Your task to perform on an android device: turn off location Image 0: 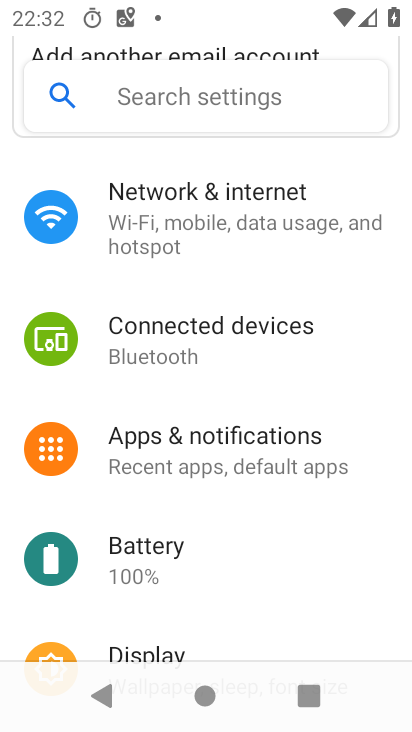
Step 0: drag from (302, 547) to (272, 293)
Your task to perform on an android device: turn off location Image 1: 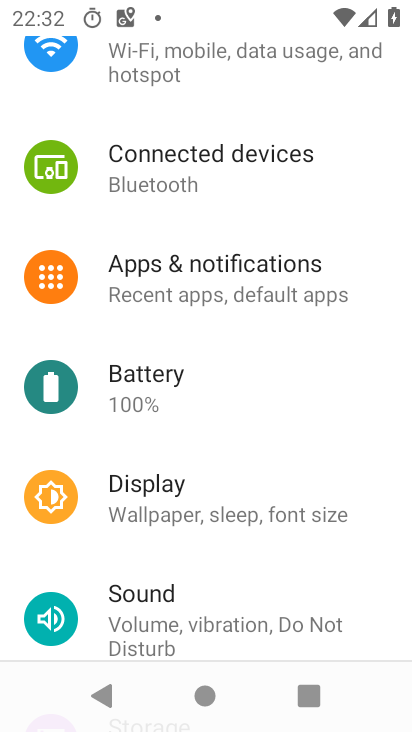
Step 1: drag from (242, 547) to (176, 212)
Your task to perform on an android device: turn off location Image 2: 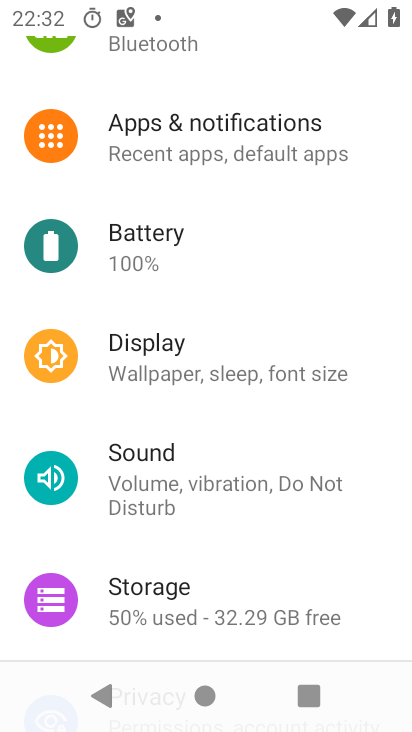
Step 2: drag from (261, 555) to (210, 312)
Your task to perform on an android device: turn off location Image 3: 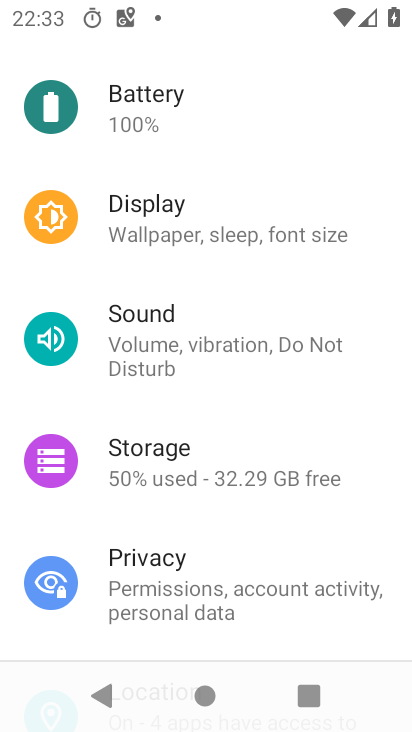
Step 3: drag from (240, 547) to (238, 295)
Your task to perform on an android device: turn off location Image 4: 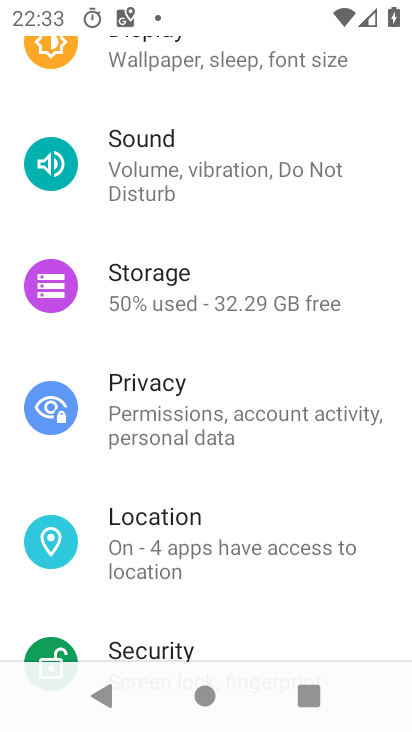
Step 4: click (212, 526)
Your task to perform on an android device: turn off location Image 5: 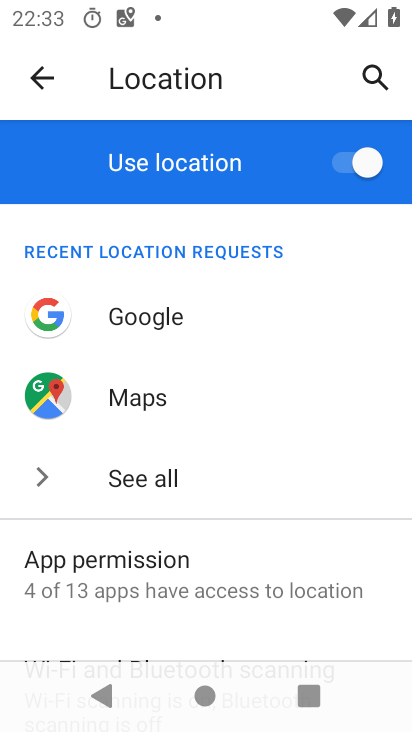
Step 5: click (344, 157)
Your task to perform on an android device: turn off location Image 6: 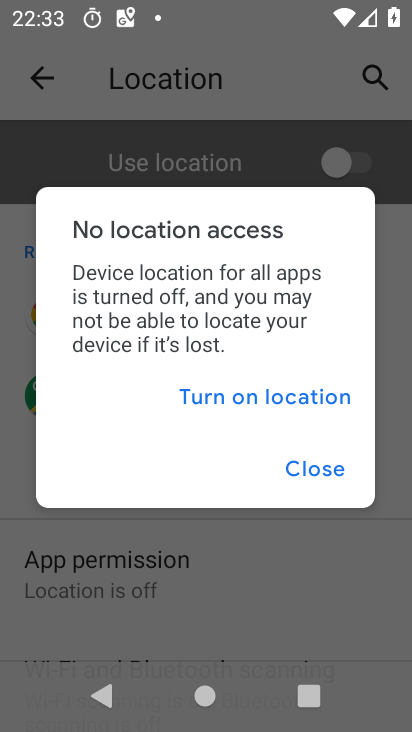
Step 6: task complete